Your task to perform on an android device: Do I have any events today? Image 0: 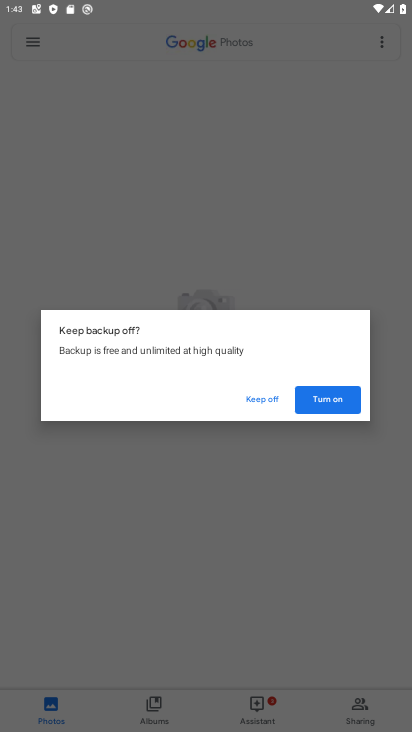
Step 0: press back button
Your task to perform on an android device: Do I have any events today? Image 1: 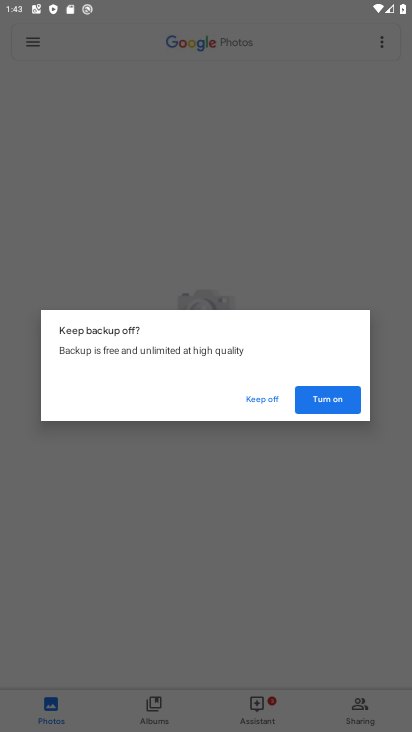
Step 1: press back button
Your task to perform on an android device: Do I have any events today? Image 2: 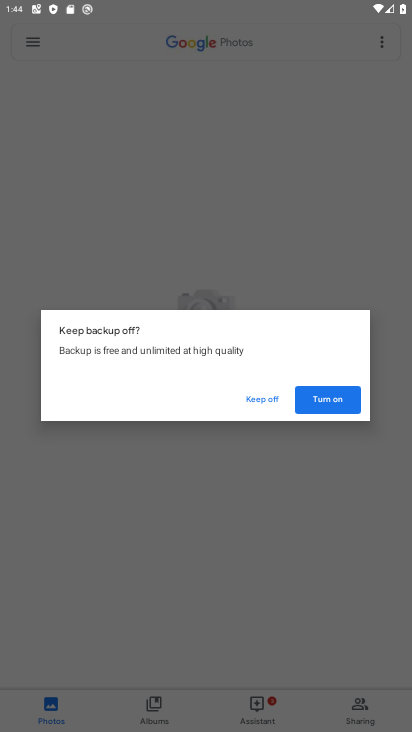
Step 2: press back button
Your task to perform on an android device: Do I have any events today? Image 3: 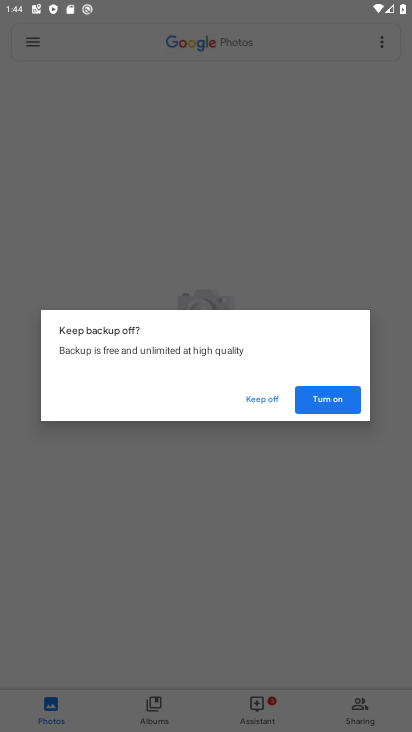
Step 3: press home button
Your task to perform on an android device: Do I have any events today? Image 4: 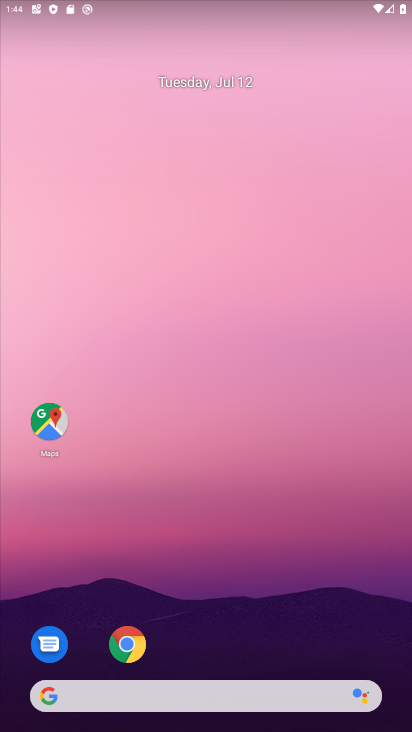
Step 4: drag from (266, 664) to (355, 15)
Your task to perform on an android device: Do I have any events today? Image 5: 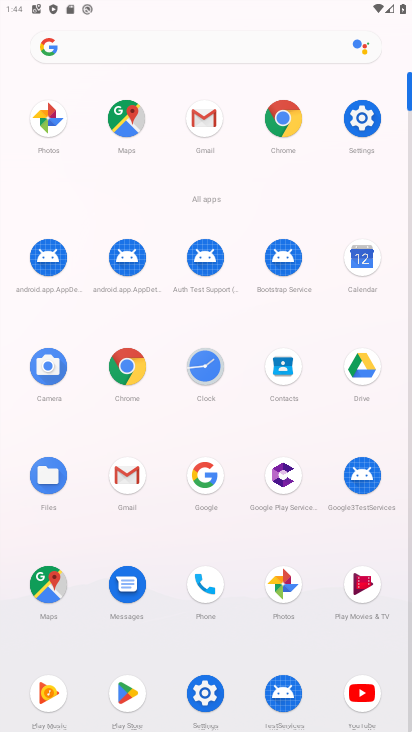
Step 5: click (360, 249)
Your task to perform on an android device: Do I have any events today? Image 6: 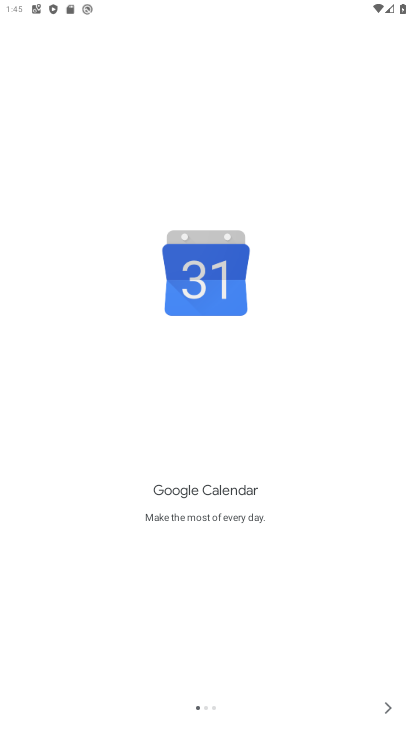
Step 6: click (385, 716)
Your task to perform on an android device: Do I have any events today? Image 7: 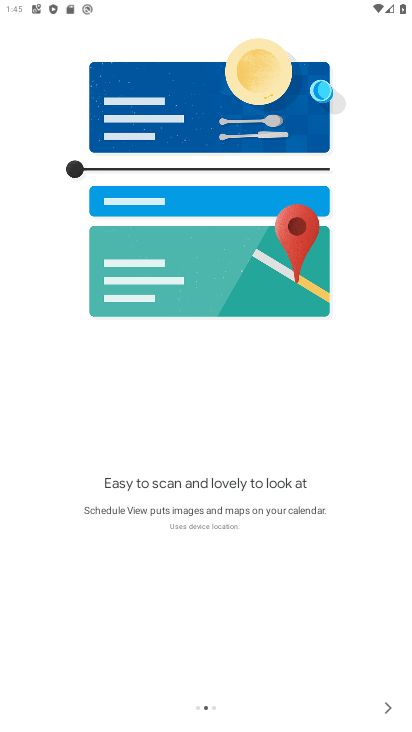
Step 7: click (382, 696)
Your task to perform on an android device: Do I have any events today? Image 8: 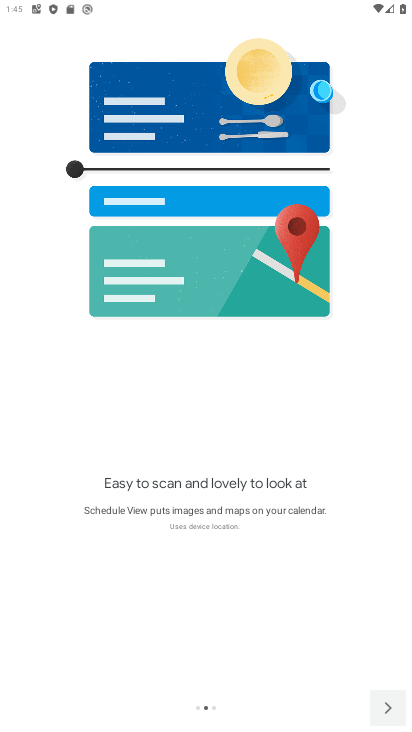
Step 8: click (382, 696)
Your task to perform on an android device: Do I have any events today? Image 9: 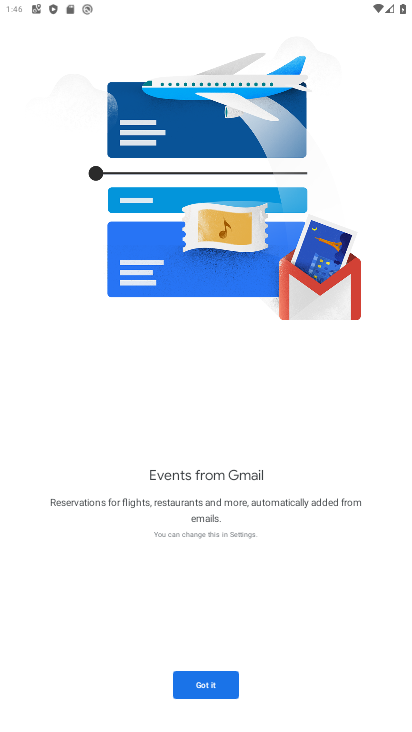
Step 9: click (382, 696)
Your task to perform on an android device: Do I have any events today? Image 10: 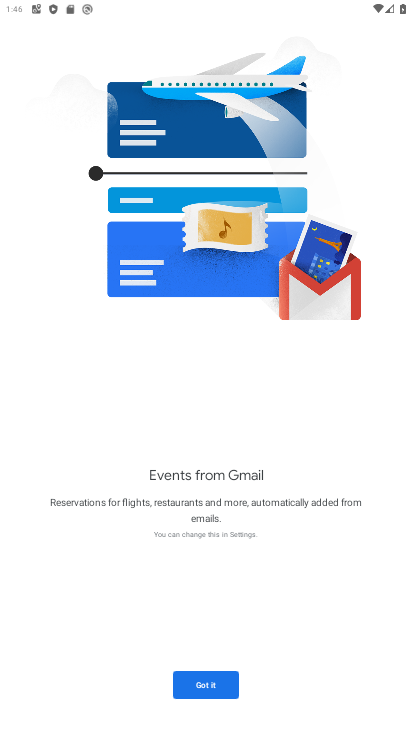
Step 10: click (230, 686)
Your task to perform on an android device: Do I have any events today? Image 11: 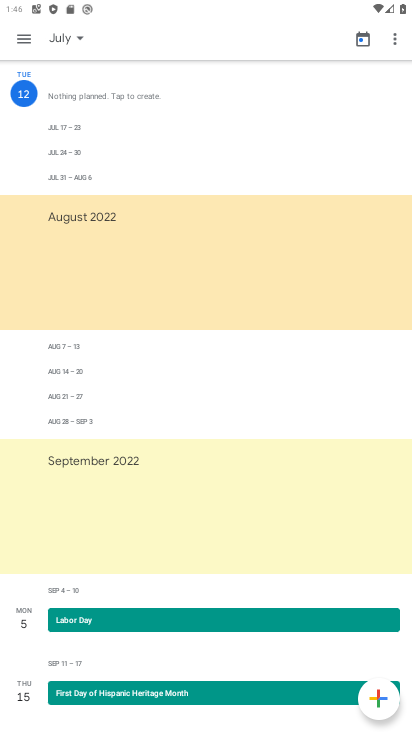
Step 11: task complete